Your task to perform on an android device: Go to network settings Image 0: 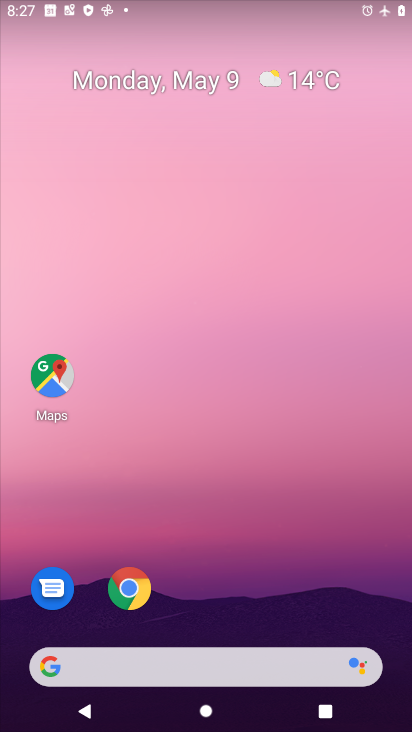
Step 0: drag from (359, 601) to (231, 49)
Your task to perform on an android device: Go to network settings Image 1: 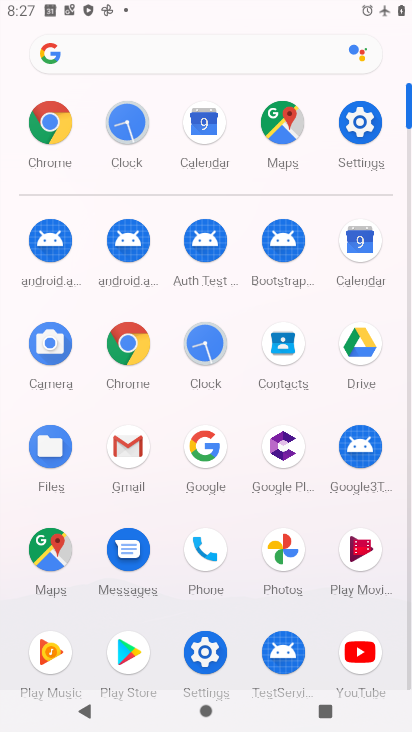
Step 1: click (202, 651)
Your task to perform on an android device: Go to network settings Image 2: 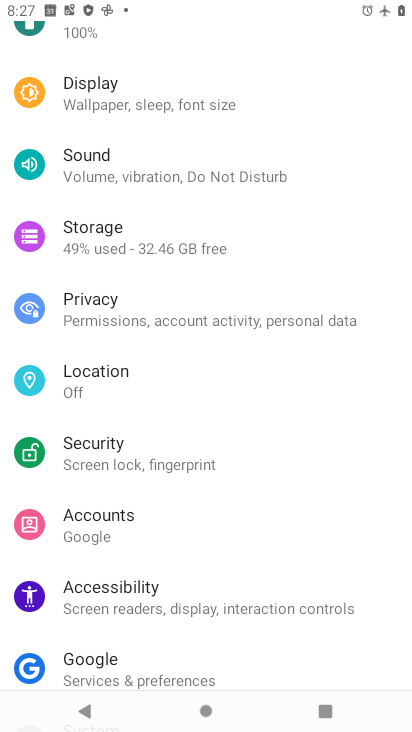
Step 2: drag from (197, 111) to (132, 620)
Your task to perform on an android device: Go to network settings Image 3: 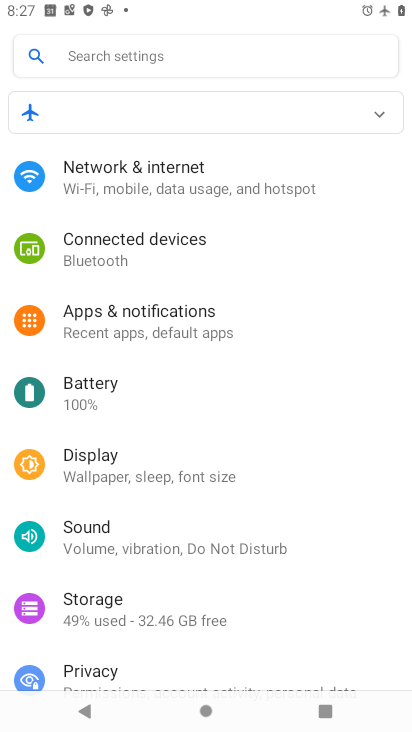
Step 3: click (174, 160)
Your task to perform on an android device: Go to network settings Image 4: 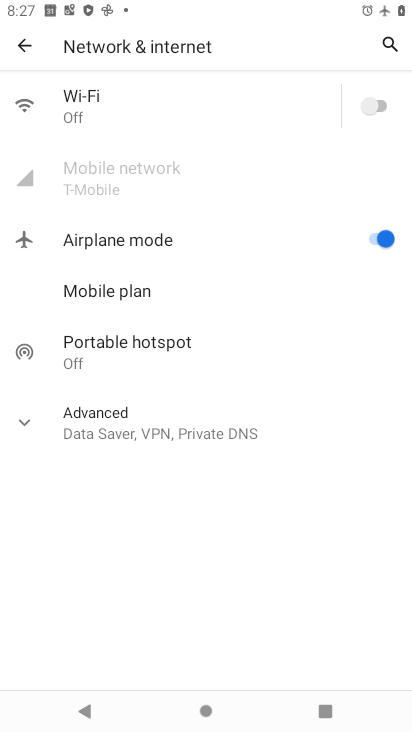
Step 4: task complete